Your task to perform on an android device: change the clock display to analog Image 0: 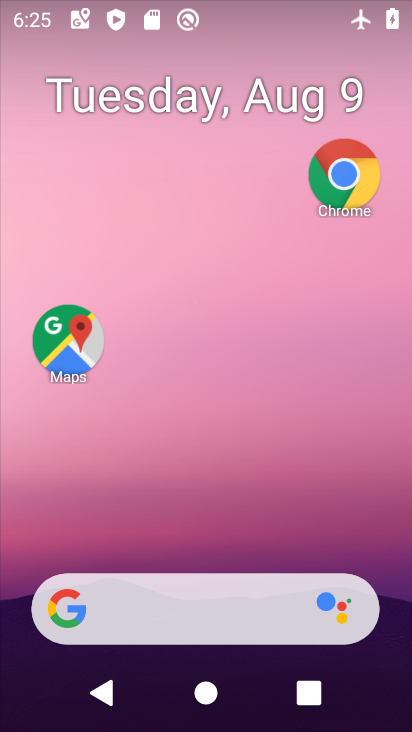
Step 0: drag from (161, 536) to (216, 405)
Your task to perform on an android device: change the clock display to analog Image 1: 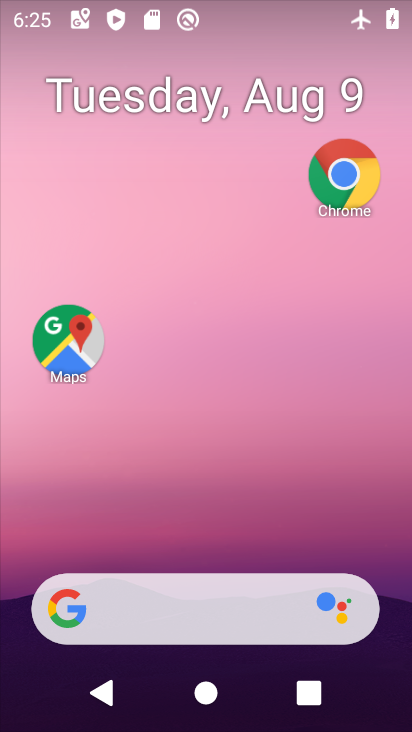
Step 1: drag from (174, 498) to (191, 216)
Your task to perform on an android device: change the clock display to analog Image 2: 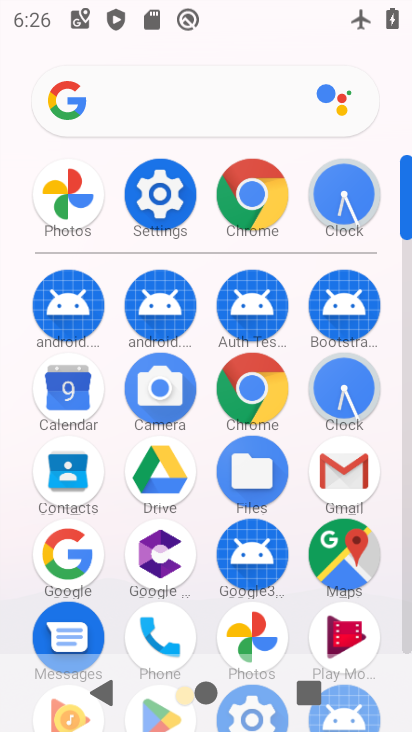
Step 2: drag from (202, 565) to (197, 356)
Your task to perform on an android device: change the clock display to analog Image 3: 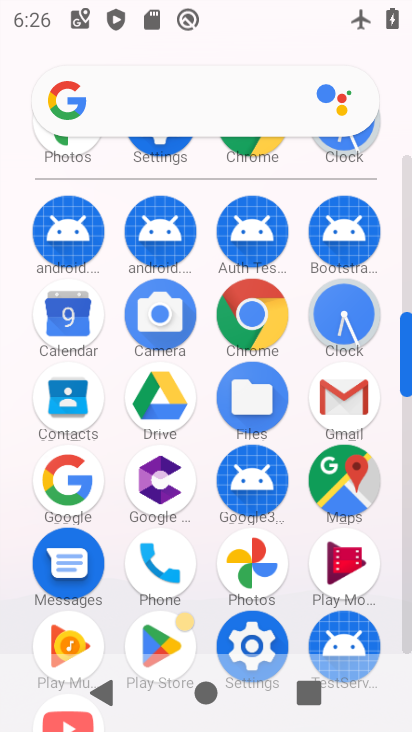
Step 3: click (343, 300)
Your task to perform on an android device: change the clock display to analog Image 4: 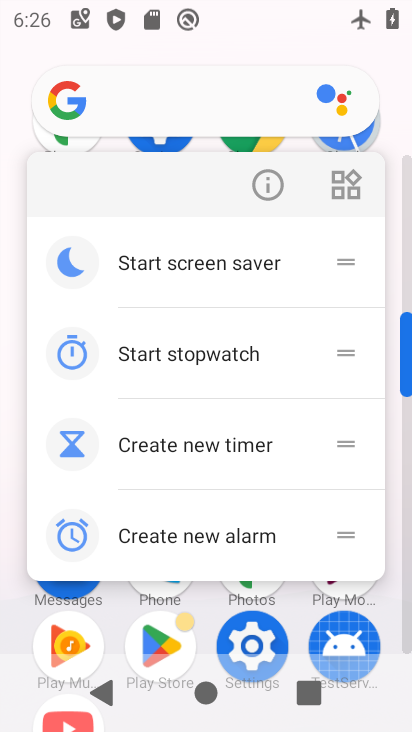
Step 4: click (286, 182)
Your task to perform on an android device: change the clock display to analog Image 5: 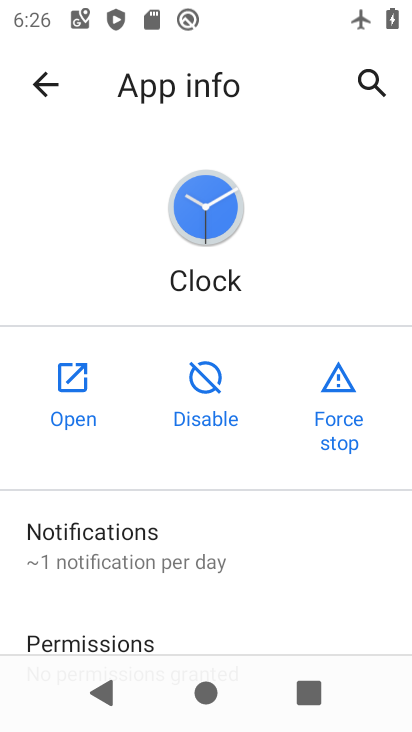
Step 5: click (62, 406)
Your task to perform on an android device: change the clock display to analog Image 6: 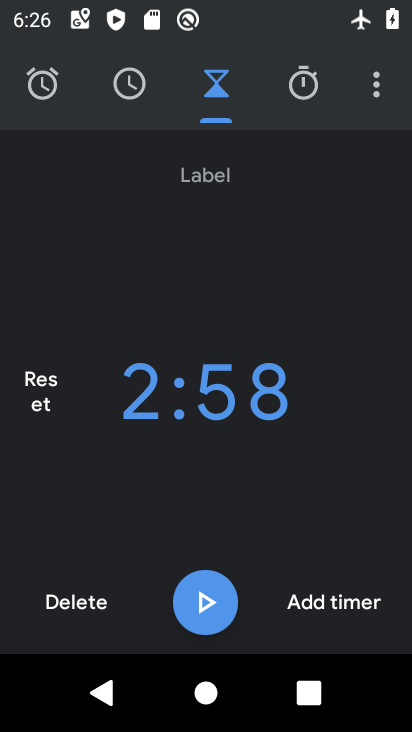
Step 6: drag from (377, 83) to (273, 159)
Your task to perform on an android device: change the clock display to analog Image 7: 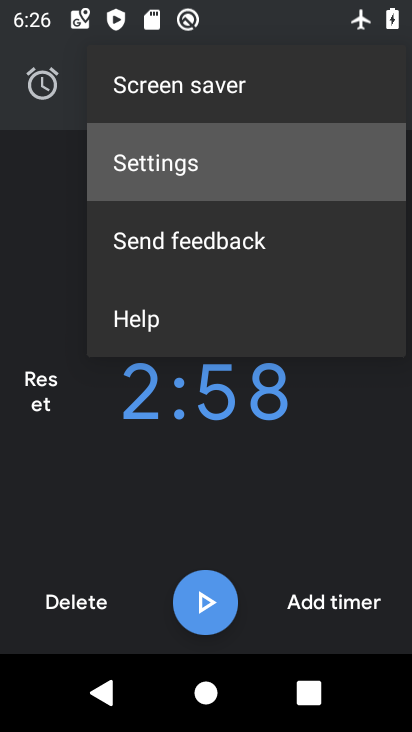
Step 7: click (273, 159)
Your task to perform on an android device: change the clock display to analog Image 8: 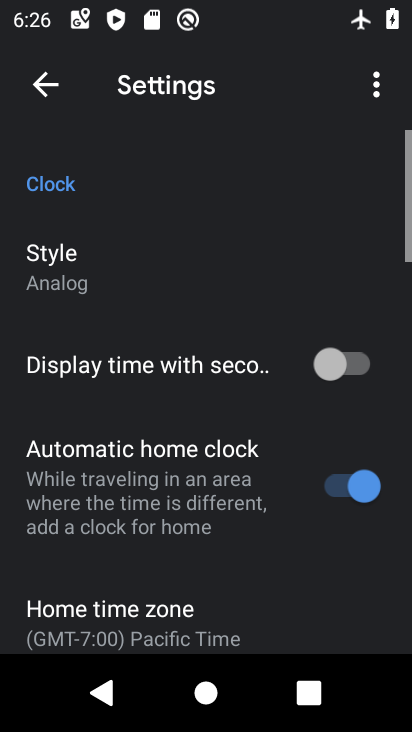
Step 8: click (35, 269)
Your task to perform on an android device: change the clock display to analog Image 9: 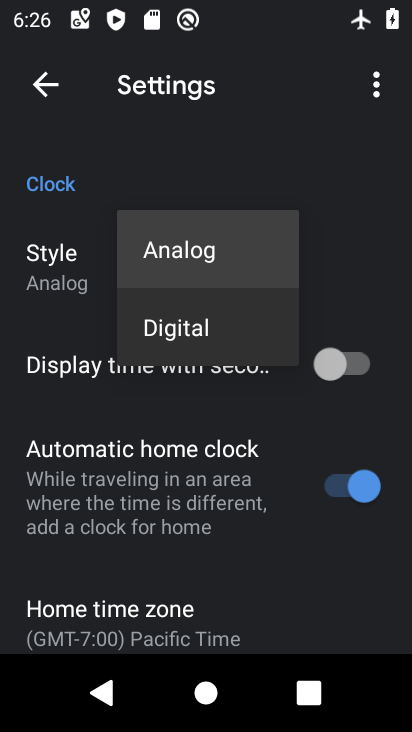
Step 9: click (205, 265)
Your task to perform on an android device: change the clock display to analog Image 10: 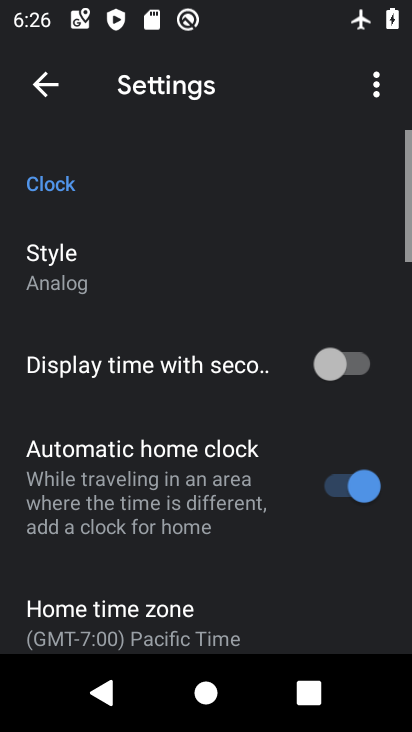
Step 10: task complete